Your task to perform on an android device: change notifications settings Image 0: 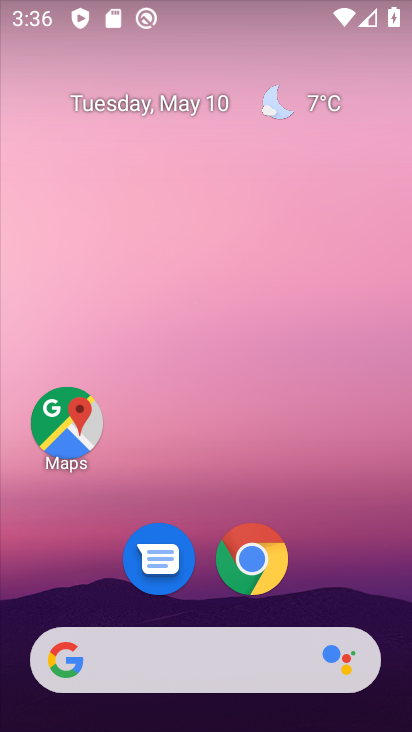
Step 0: drag from (169, 618) to (306, 45)
Your task to perform on an android device: change notifications settings Image 1: 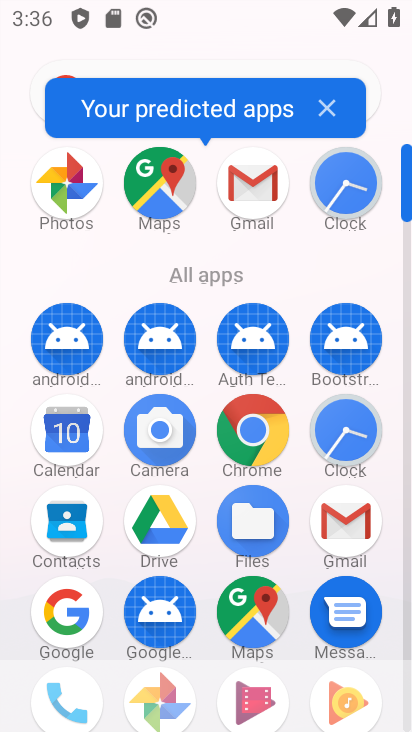
Step 1: drag from (189, 595) to (251, 302)
Your task to perform on an android device: change notifications settings Image 2: 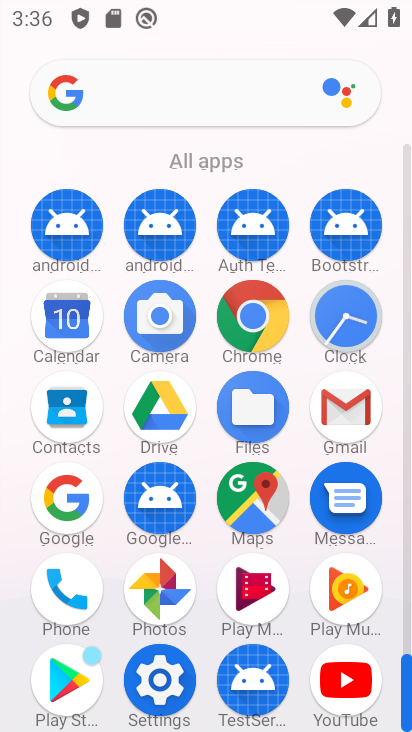
Step 2: click (159, 688)
Your task to perform on an android device: change notifications settings Image 3: 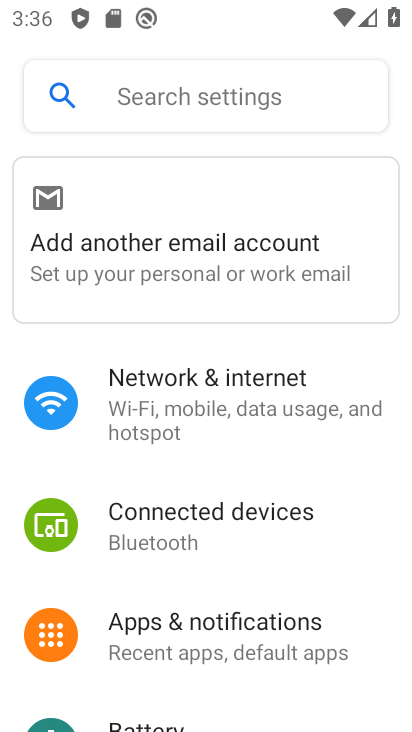
Step 3: click (211, 639)
Your task to perform on an android device: change notifications settings Image 4: 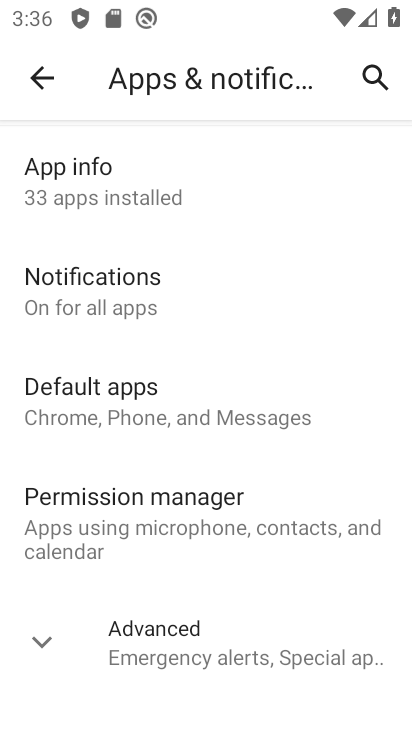
Step 4: click (121, 276)
Your task to perform on an android device: change notifications settings Image 5: 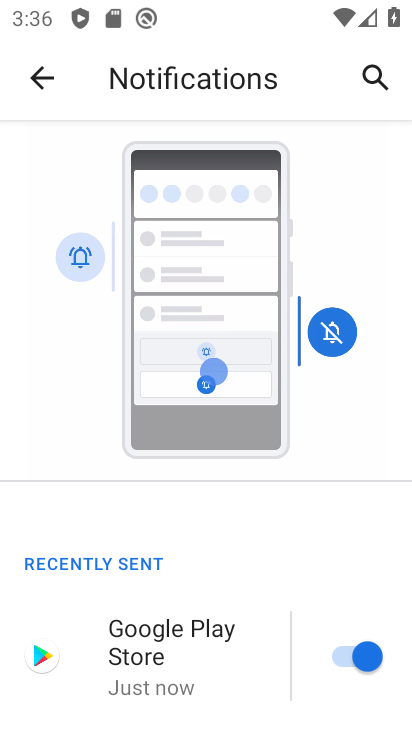
Step 5: drag from (196, 599) to (294, 252)
Your task to perform on an android device: change notifications settings Image 6: 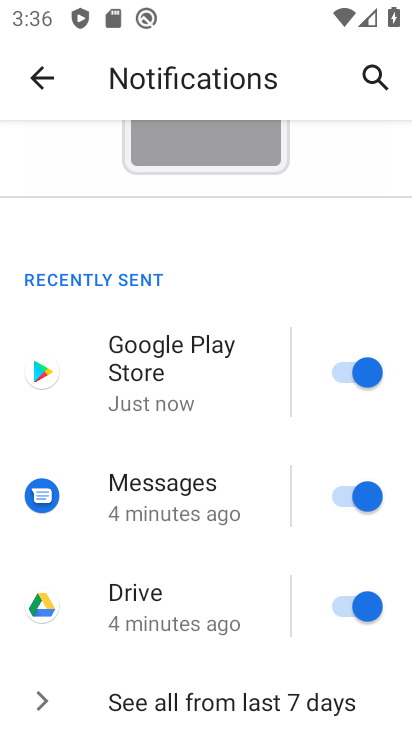
Step 6: drag from (186, 598) to (251, 356)
Your task to perform on an android device: change notifications settings Image 7: 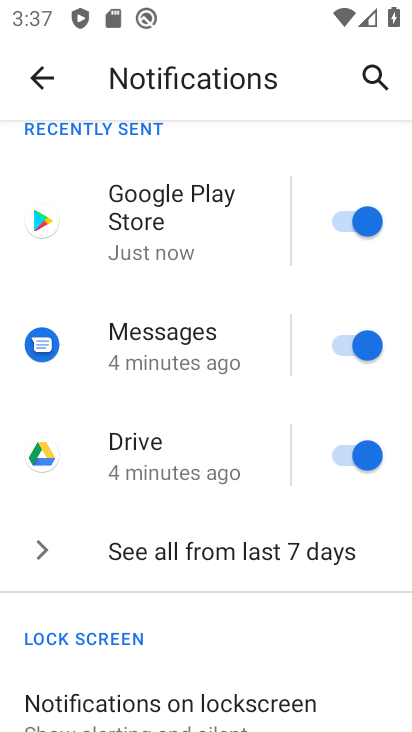
Step 7: click (348, 345)
Your task to perform on an android device: change notifications settings Image 8: 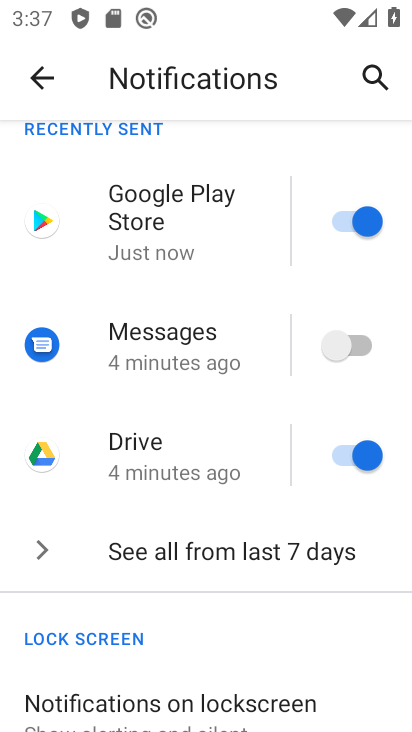
Step 8: click (353, 214)
Your task to perform on an android device: change notifications settings Image 9: 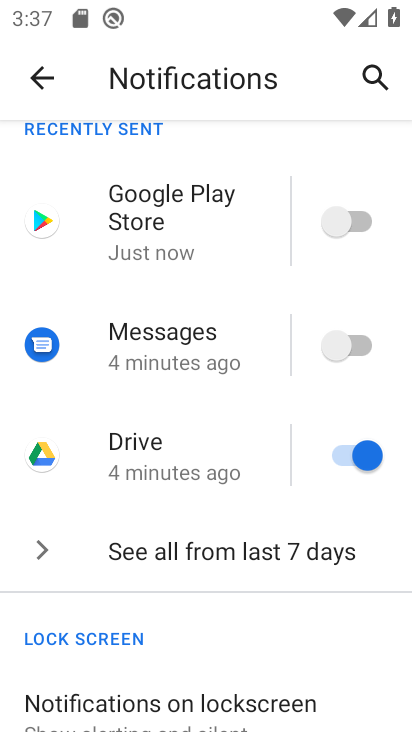
Step 9: click (344, 458)
Your task to perform on an android device: change notifications settings Image 10: 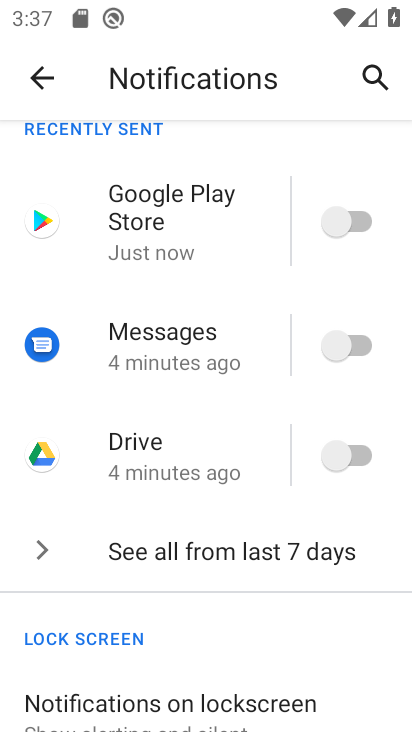
Step 10: drag from (202, 607) to (265, 289)
Your task to perform on an android device: change notifications settings Image 11: 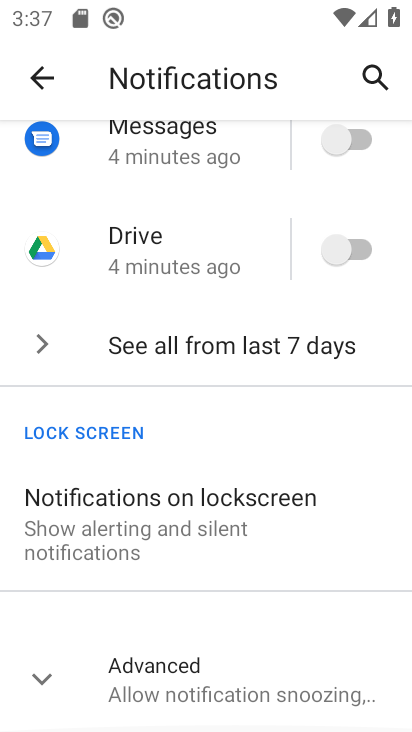
Step 11: click (198, 667)
Your task to perform on an android device: change notifications settings Image 12: 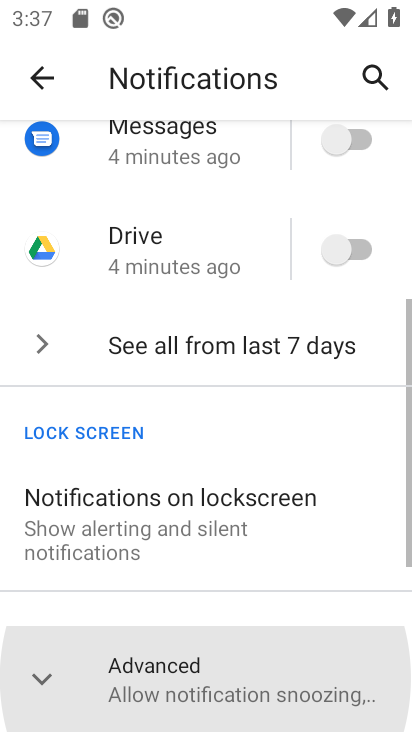
Step 12: drag from (255, 587) to (355, 284)
Your task to perform on an android device: change notifications settings Image 13: 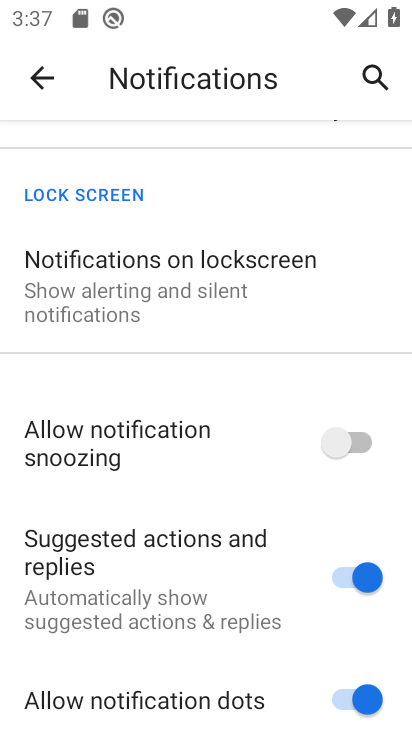
Step 13: click (364, 430)
Your task to perform on an android device: change notifications settings Image 14: 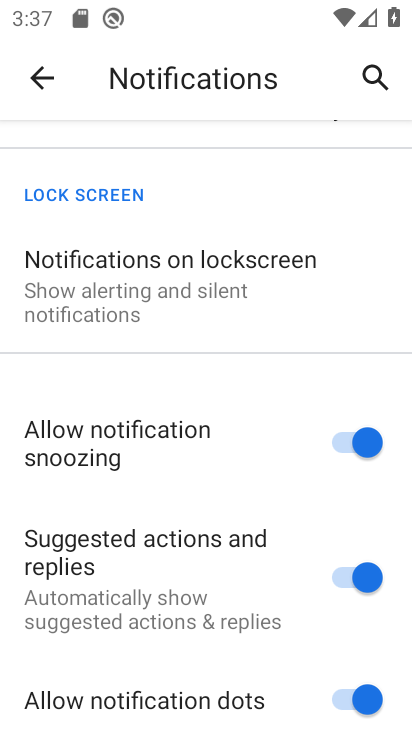
Step 14: click (353, 584)
Your task to perform on an android device: change notifications settings Image 15: 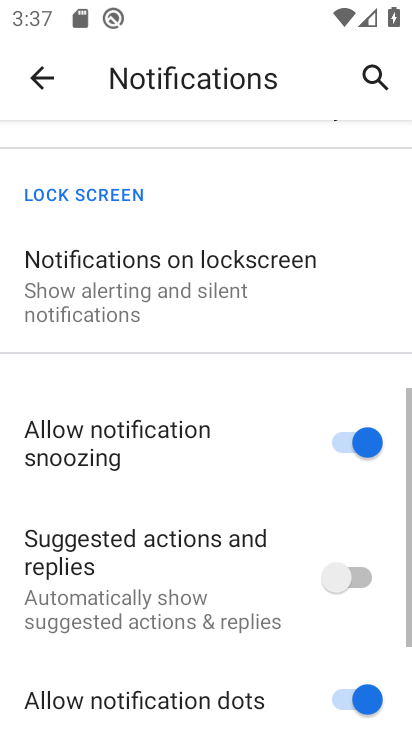
Step 15: drag from (159, 673) to (222, 408)
Your task to perform on an android device: change notifications settings Image 16: 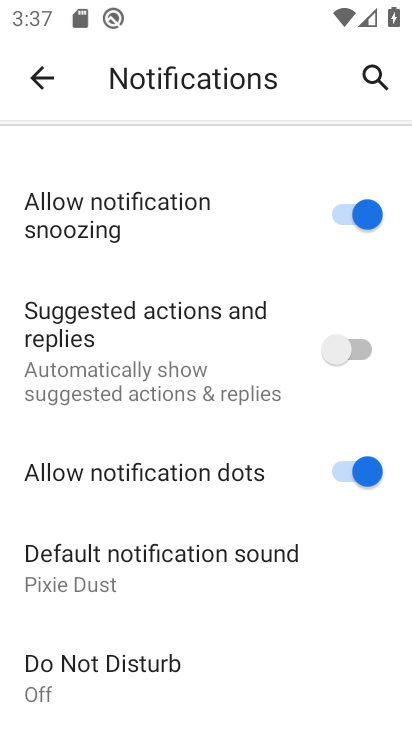
Step 16: click (338, 471)
Your task to perform on an android device: change notifications settings Image 17: 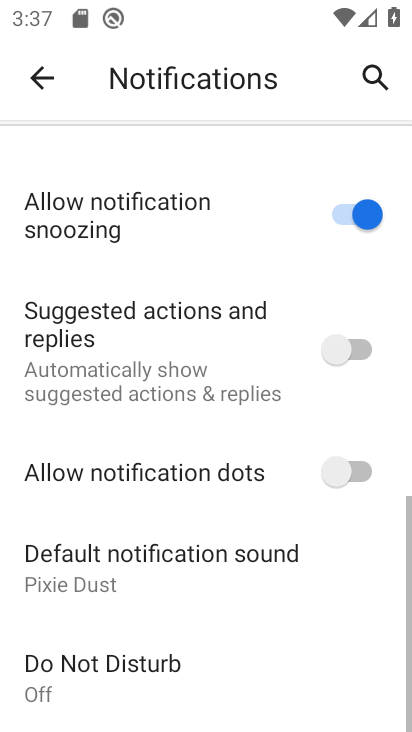
Step 17: click (206, 573)
Your task to perform on an android device: change notifications settings Image 18: 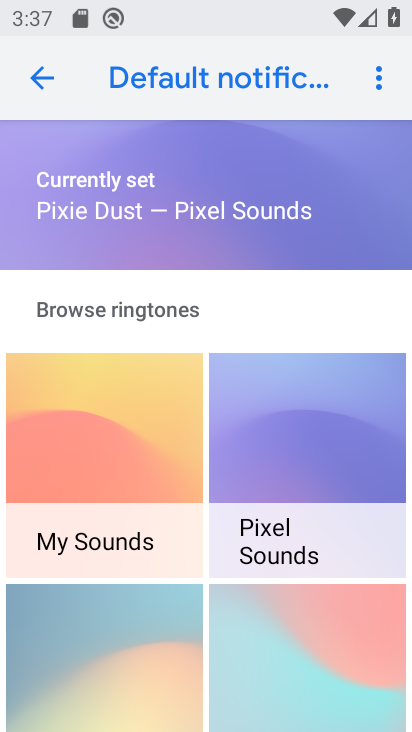
Step 18: drag from (166, 635) to (269, 313)
Your task to perform on an android device: change notifications settings Image 19: 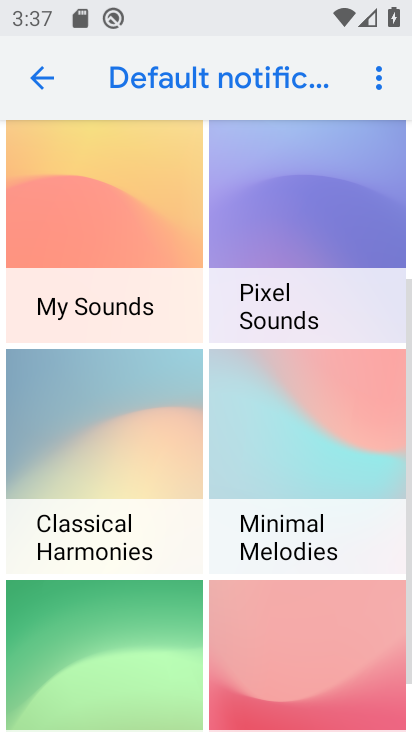
Step 19: click (146, 459)
Your task to perform on an android device: change notifications settings Image 20: 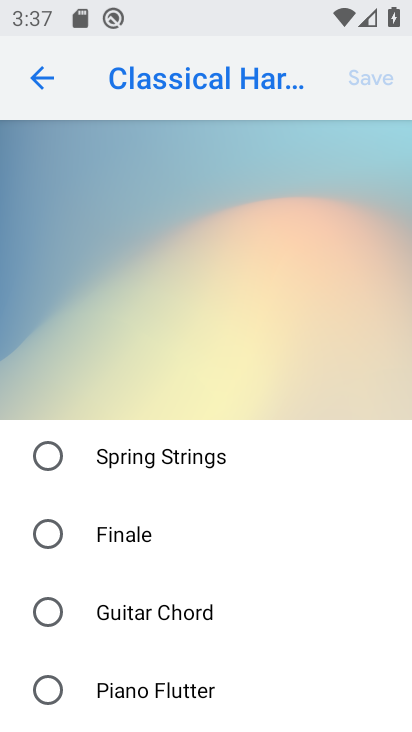
Step 20: click (186, 617)
Your task to perform on an android device: change notifications settings Image 21: 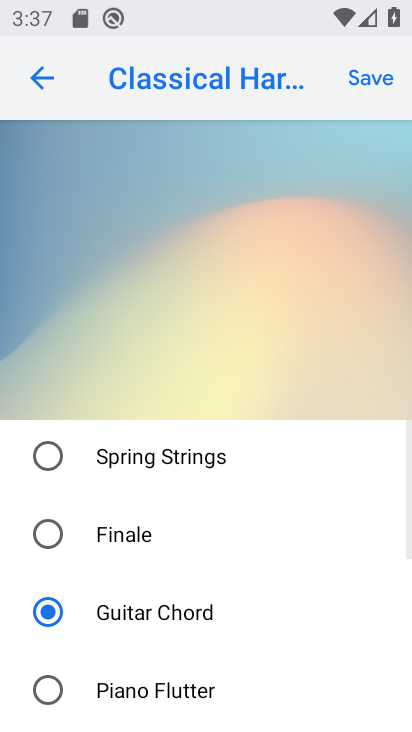
Step 21: click (376, 86)
Your task to perform on an android device: change notifications settings Image 22: 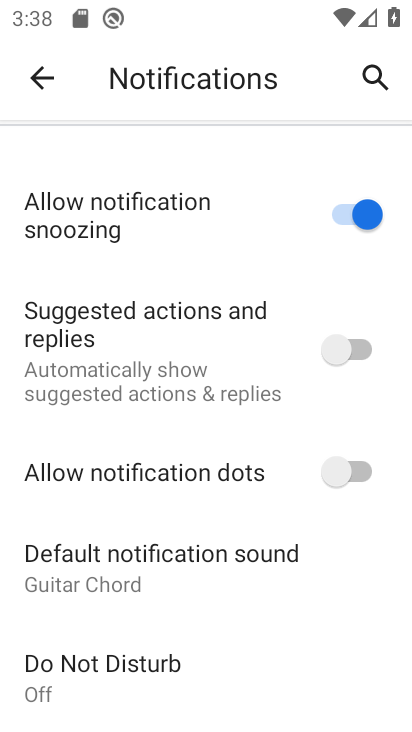
Step 22: task complete